Your task to perform on an android device: Open Chrome and go to the settings page Image 0: 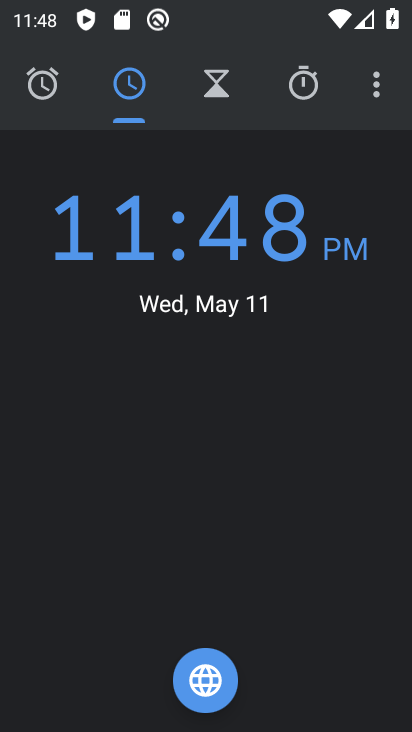
Step 0: press home button
Your task to perform on an android device: Open Chrome and go to the settings page Image 1: 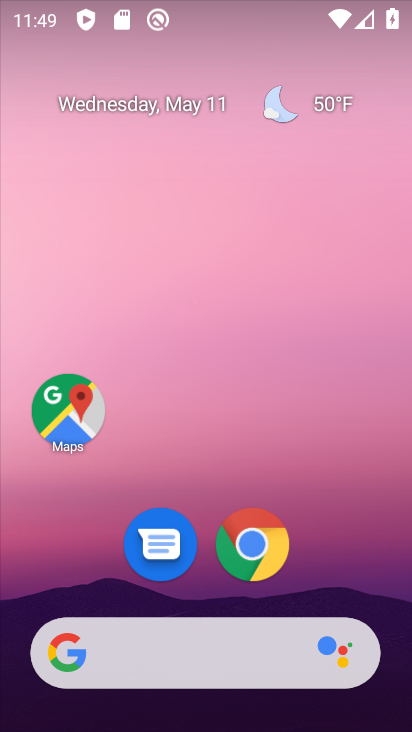
Step 1: click (227, 551)
Your task to perform on an android device: Open Chrome and go to the settings page Image 2: 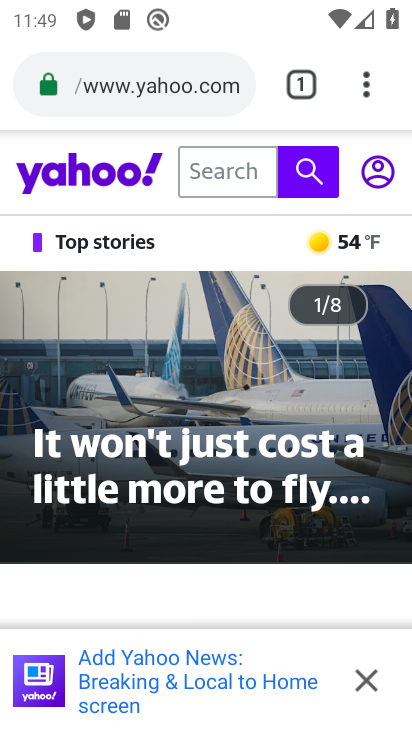
Step 2: task complete